Your task to perform on an android device: Find the nearest electronics store that's open tomorrow Image 0: 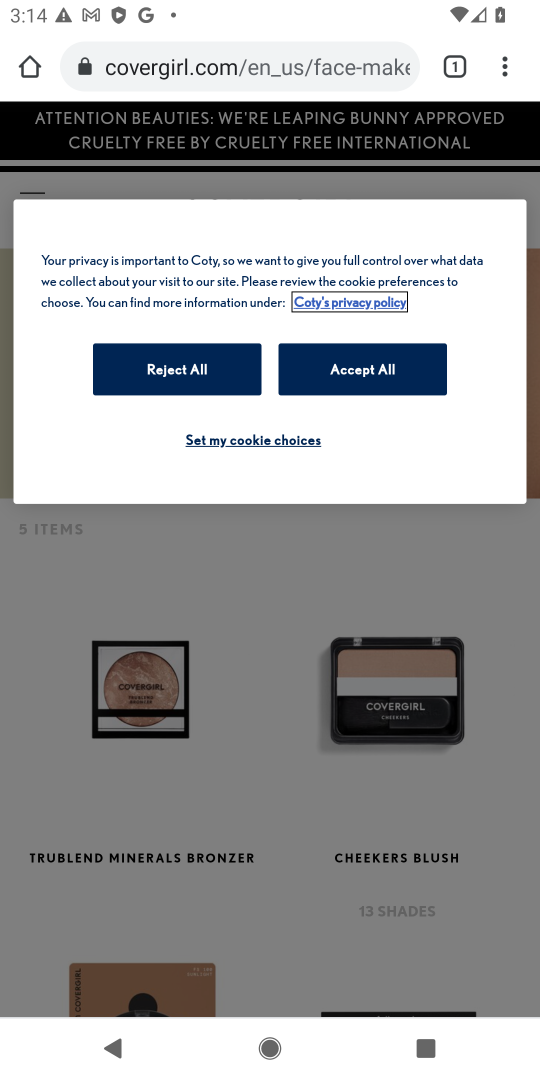
Step 0: press home button
Your task to perform on an android device: Find the nearest electronics store that's open tomorrow Image 1: 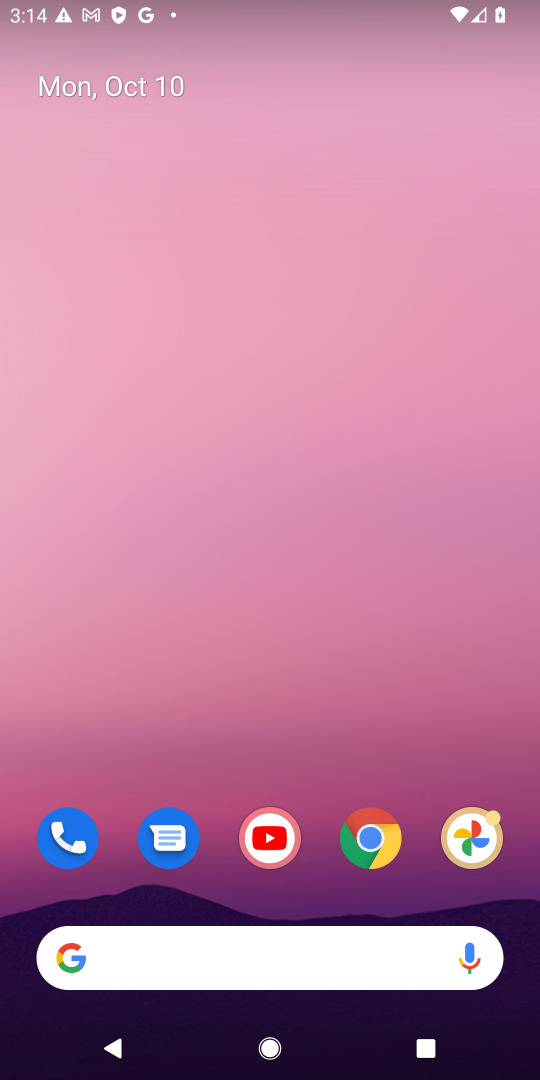
Step 1: drag from (295, 889) to (426, 5)
Your task to perform on an android device: Find the nearest electronics store that's open tomorrow Image 2: 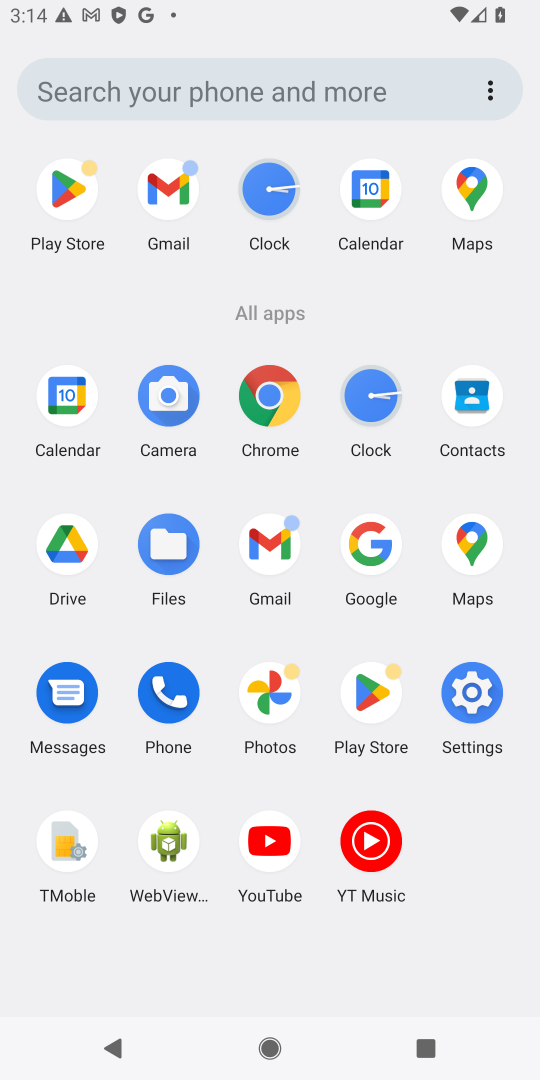
Step 2: click (475, 567)
Your task to perform on an android device: Find the nearest electronics store that's open tomorrow Image 3: 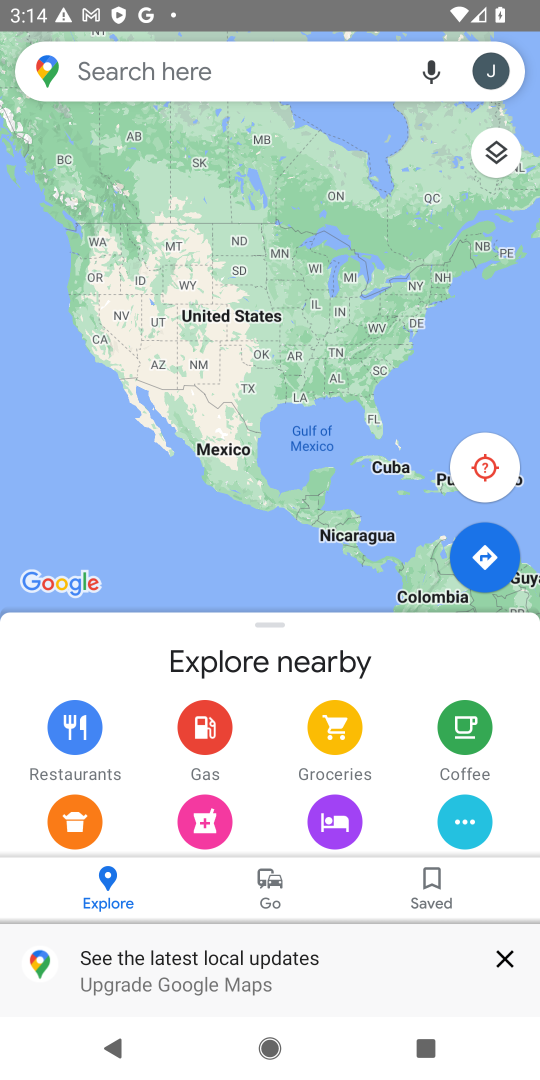
Step 3: click (136, 59)
Your task to perform on an android device: Find the nearest electronics store that's open tomorrow Image 4: 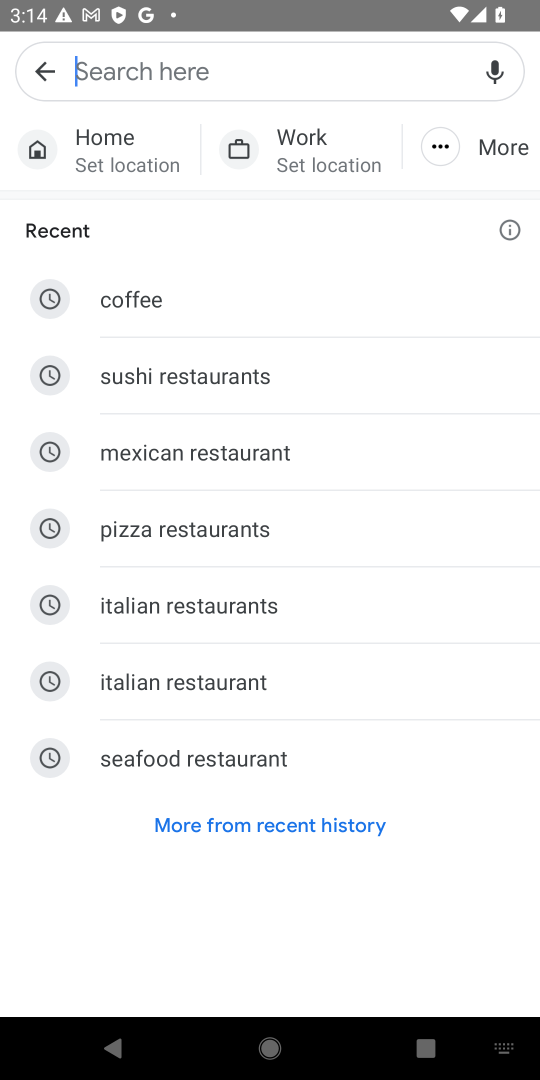
Step 4: type "Find the nearest electronics store that's open tomorrow"
Your task to perform on an android device: Find the nearest electronics store that's open tomorrow Image 5: 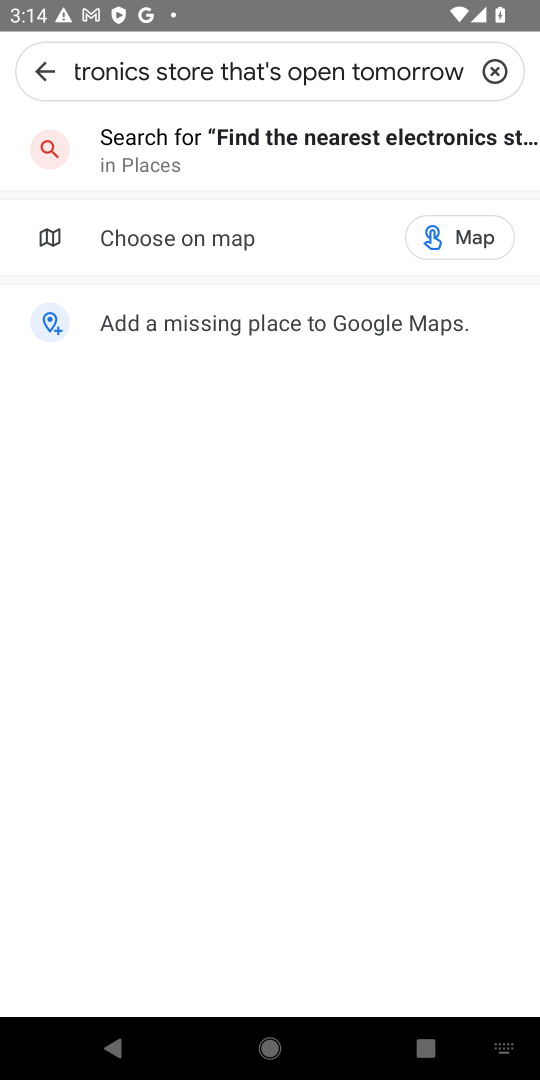
Step 5: click (309, 152)
Your task to perform on an android device: Find the nearest electronics store that's open tomorrow Image 6: 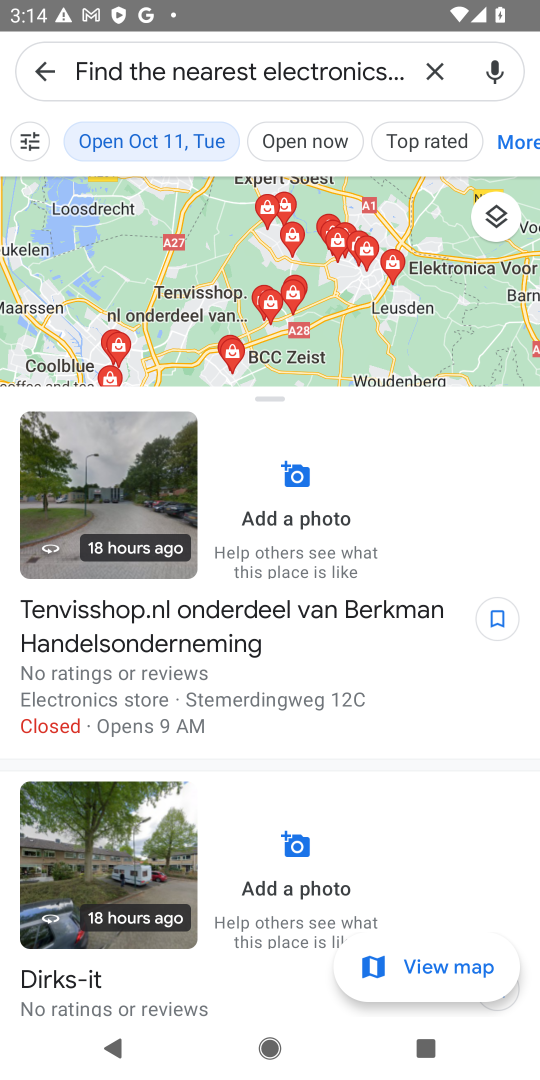
Step 6: task complete